Your task to perform on an android device: manage bookmarks in the chrome app Image 0: 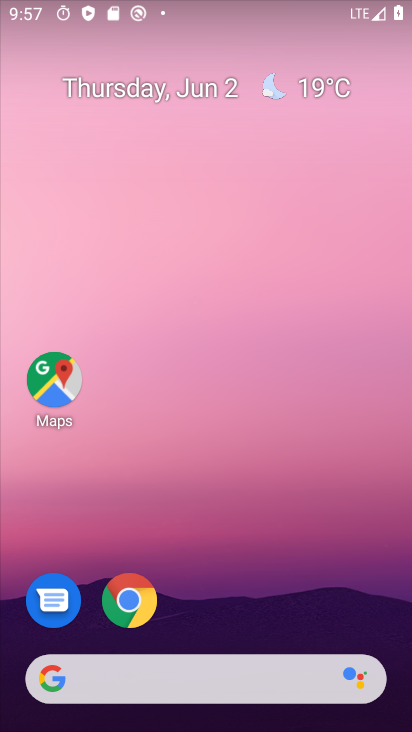
Step 0: click (141, 605)
Your task to perform on an android device: manage bookmarks in the chrome app Image 1: 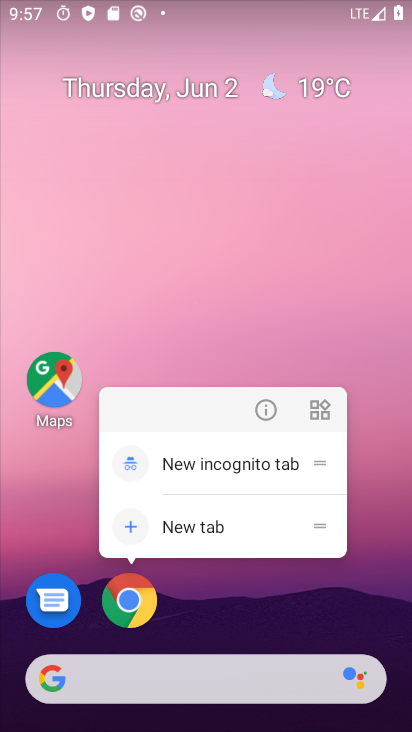
Step 1: click (141, 601)
Your task to perform on an android device: manage bookmarks in the chrome app Image 2: 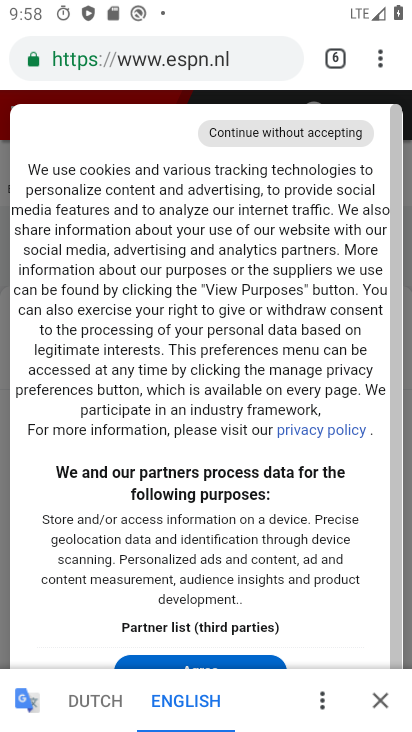
Step 2: drag from (379, 55) to (225, 215)
Your task to perform on an android device: manage bookmarks in the chrome app Image 3: 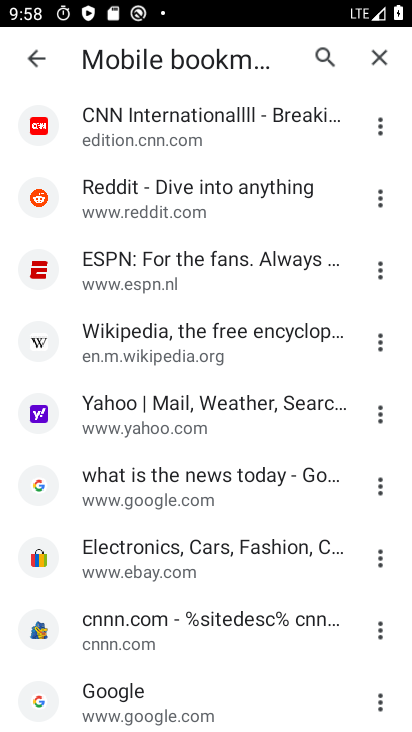
Step 3: click (379, 272)
Your task to perform on an android device: manage bookmarks in the chrome app Image 4: 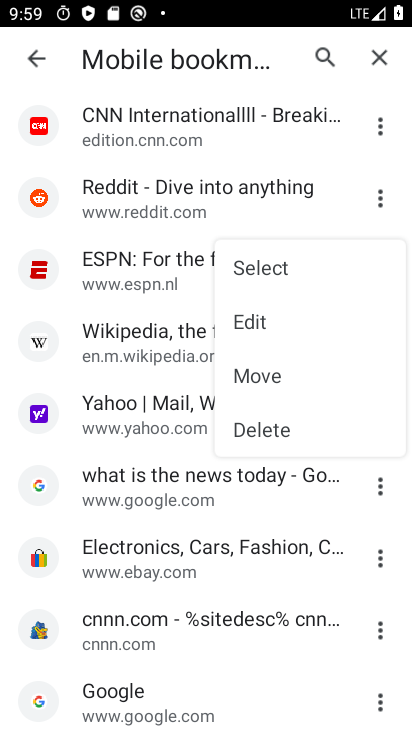
Step 4: click (272, 421)
Your task to perform on an android device: manage bookmarks in the chrome app Image 5: 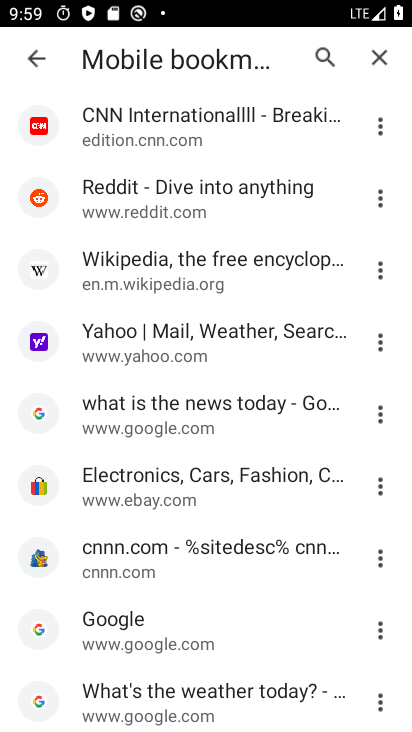
Step 5: task complete